Your task to perform on an android device: move a message to another label in the gmail app Image 0: 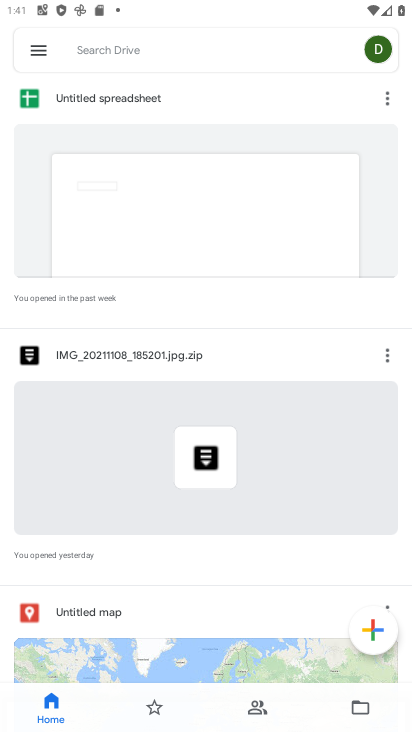
Step 0: press home button
Your task to perform on an android device: move a message to another label in the gmail app Image 1: 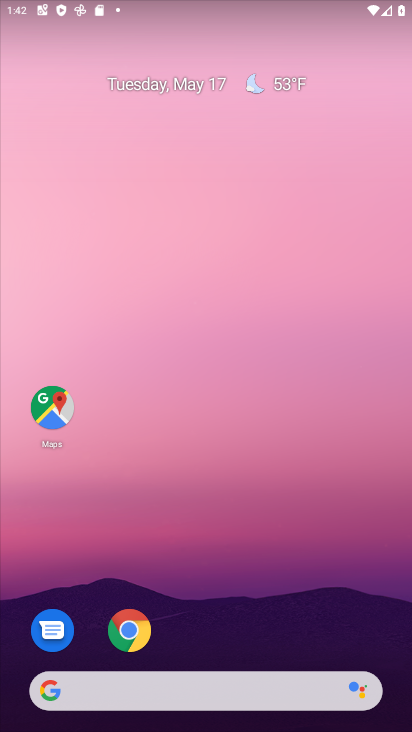
Step 1: drag from (248, 632) to (242, 213)
Your task to perform on an android device: move a message to another label in the gmail app Image 2: 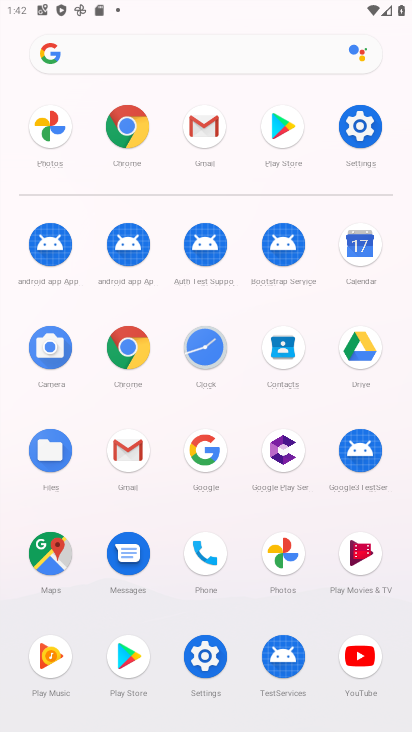
Step 2: click (128, 461)
Your task to perform on an android device: move a message to another label in the gmail app Image 3: 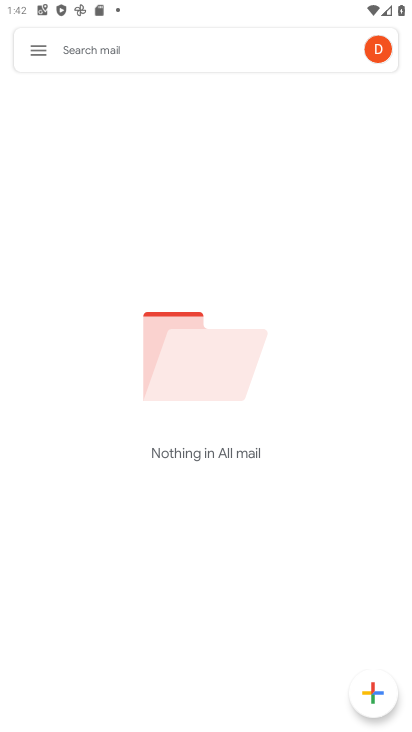
Step 3: click (44, 56)
Your task to perform on an android device: move a message to another label in the gmail app Image 4: 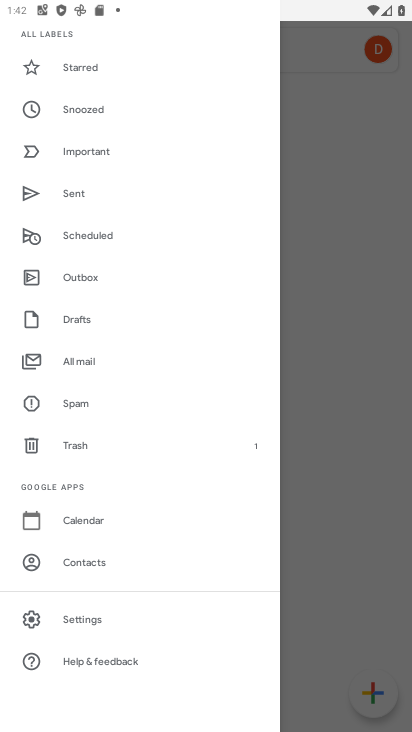
Step 4: click (49, 359)
Your task to perform on an android device: move a message to another label in the gmail app Image 5: 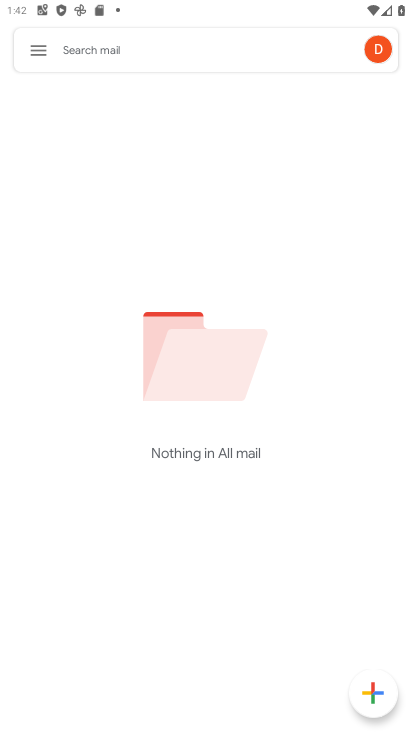
Step 5: task complete